Your task to perform on an android device: open chrome privacy settings Image 0: 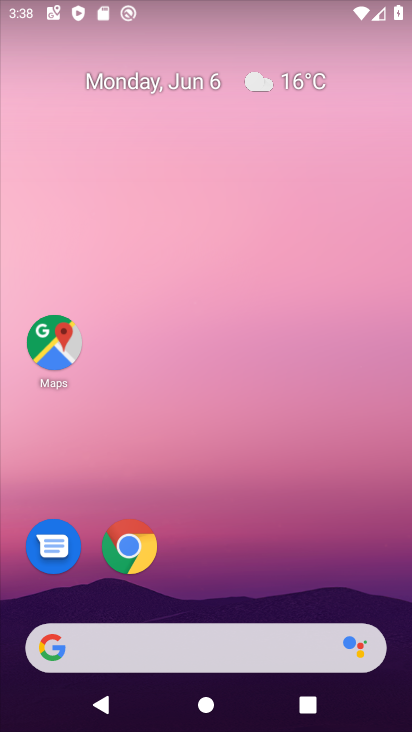
Step 0: drag from (301, 541) to (131, 731)
Your task to perform on an android device: open chrome privacy settings Image 1: 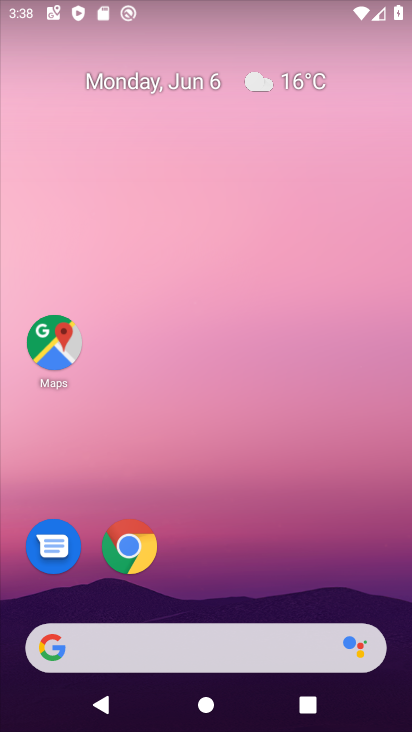
Step 1: drag from (271, 569) to (316, 22)
Your task to perform on an android device: open chrome privacy settings Image 2: 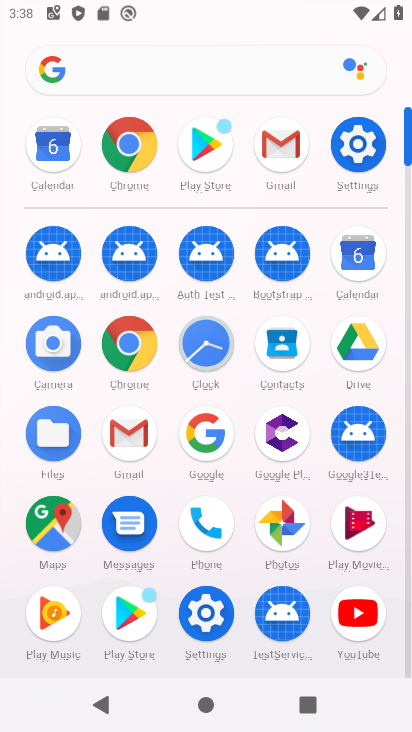
Step 2: click (355, 142)
Your task to perform on an android device: open chrome privacy settings Image 3: 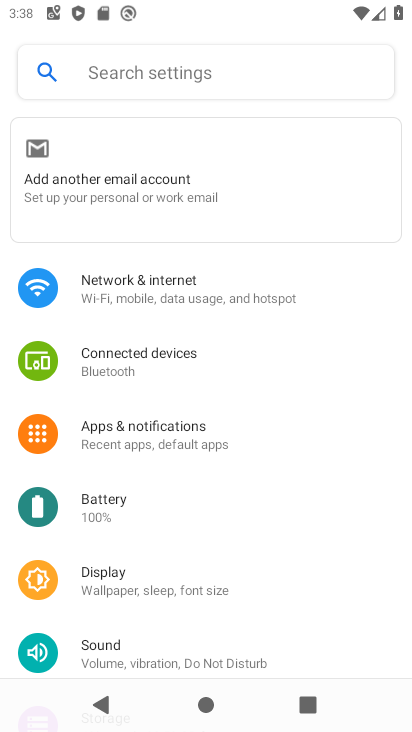
Step 3: drag from (170, 638) to (221, 213)
Your task to perform on an android device: open chrome privacy settings Image 4: 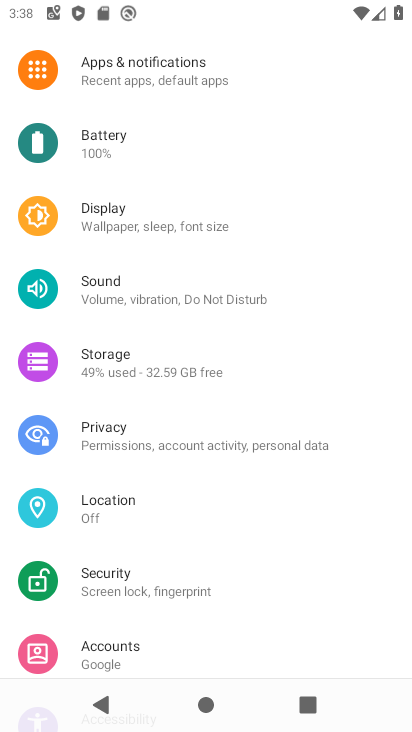
Step 4: click (142, 422)
Your task to perform on an android device: open chrome privacy settings Image 5: 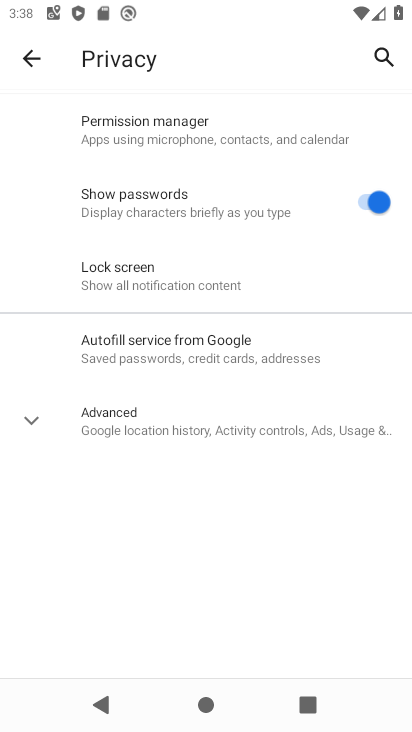
Step 5: task complete